Your task to perform on an android device: Open Google Chrome and click the shortcut for Amazon.com Image 0: 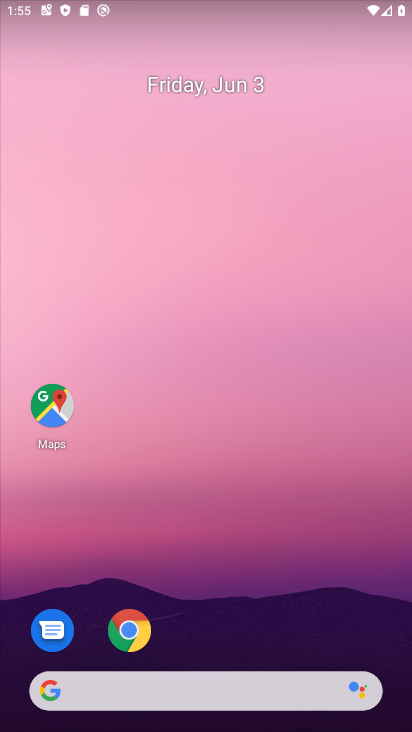
Step 0: click (123, 628)
Your task to perform on an android device: Open Google Chrome and click the shortcut for Amazon.com Image 1: 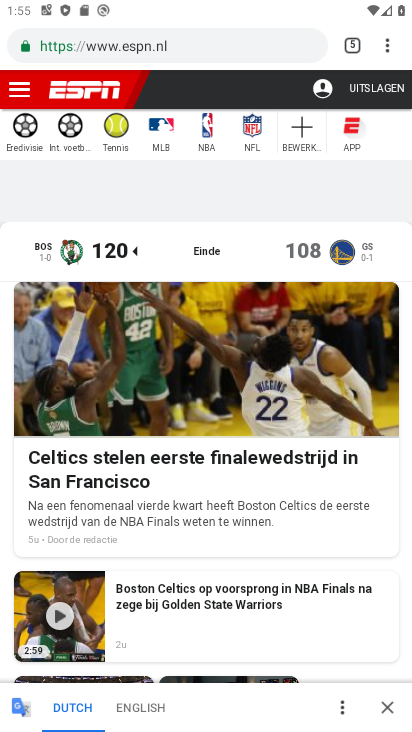
Step 1: click (387, 46)
Your task to perform on an android device: Open Google Chrome and click the shortcut for Amazon.com Image 2: 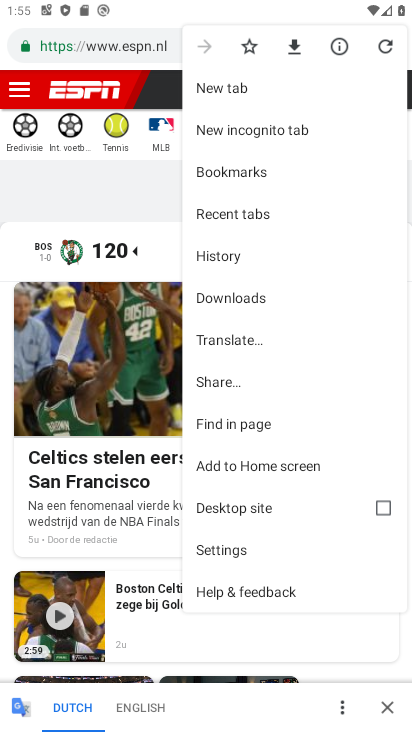
Step 2: click (221, 86)
Your task to perform on an android device: Open Google Chrome and click the shortcut for Amazon.com Image 3: 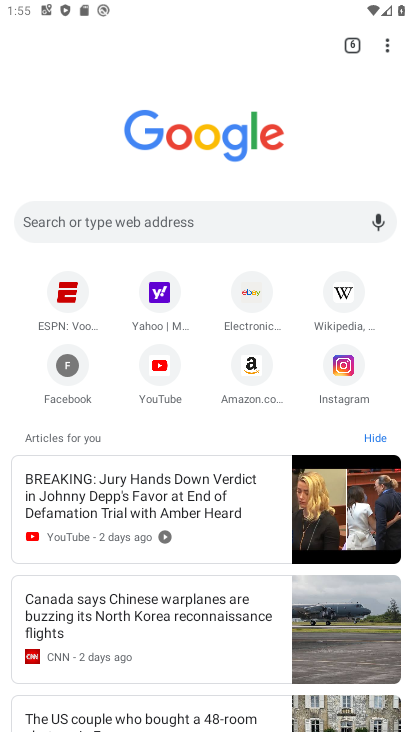
Step 3: click (249, 378)
Your task to perform on an android device: Open Google Chrome and click the shortcut for Amazon.com Image 4: 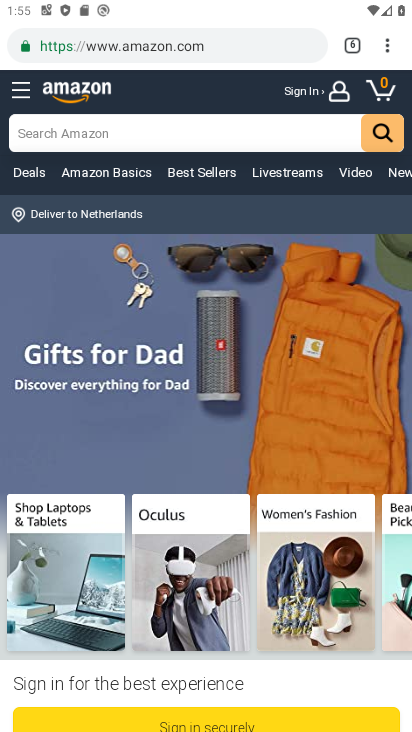
Step 4: task complete